Your task to perform on an android device: uninstall "Google Play Games" Image 0: 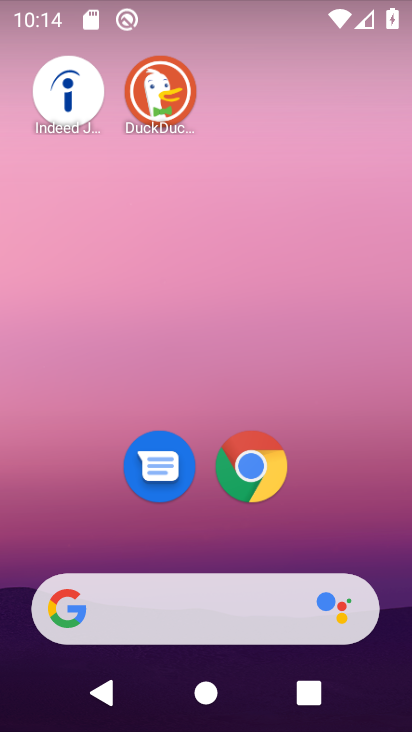
Step 0: drag from (239, 710) to (239, 58)
Your task to perform on an android device: uninstall "Google Play Games" Image 1: 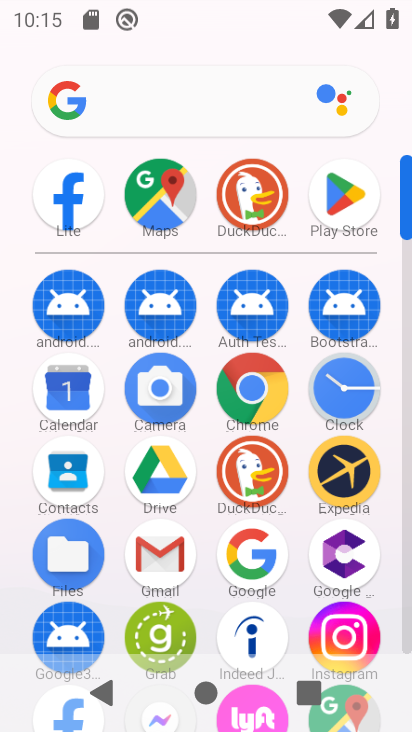
Step 1: click (355, 203)
Your task to perform on an android device: uninstall "Google Play Games" Image 2: 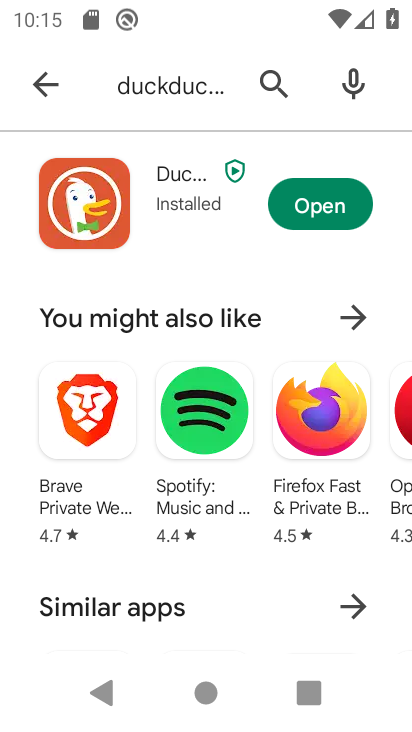
Step 2: click (275, 78)
Your task to perform on an android device: uninstall "Google Play Games" Image 3: 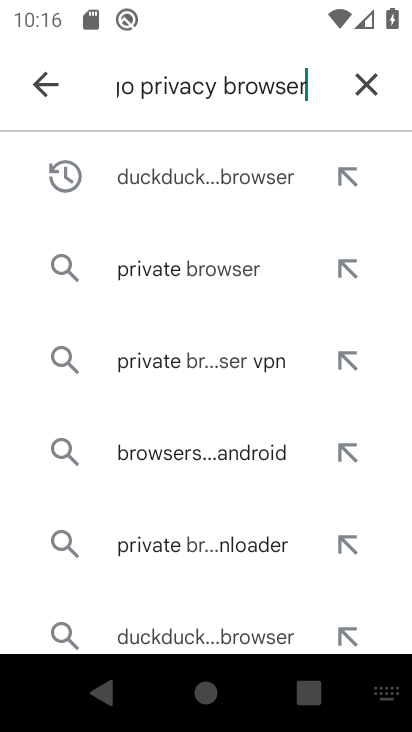
Step 3: click (369, 80)
Your task to perform on an android device: uninstall "Google Play Games" Image 4: 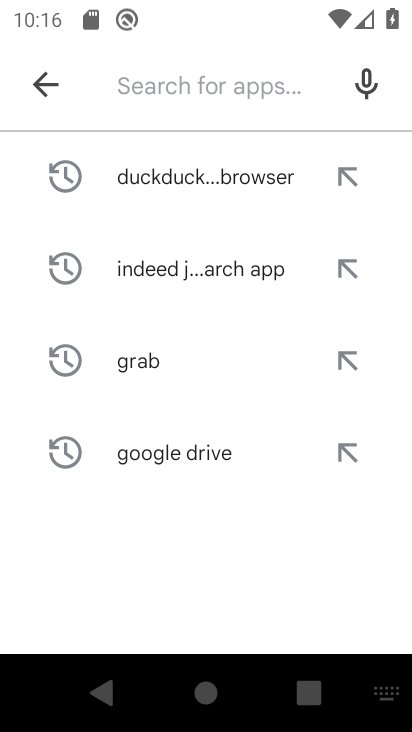
Step 4: type "Google Play Games"
Your task to perform on an android device: uninstall "Google Play Games" Image 5: 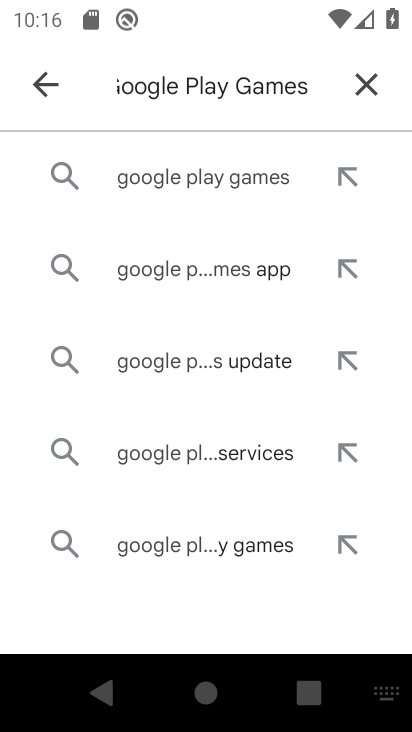
Step 5: click (209, 180)
Your task to perform on an android device: uninstall "Google Play Games" Image 6: 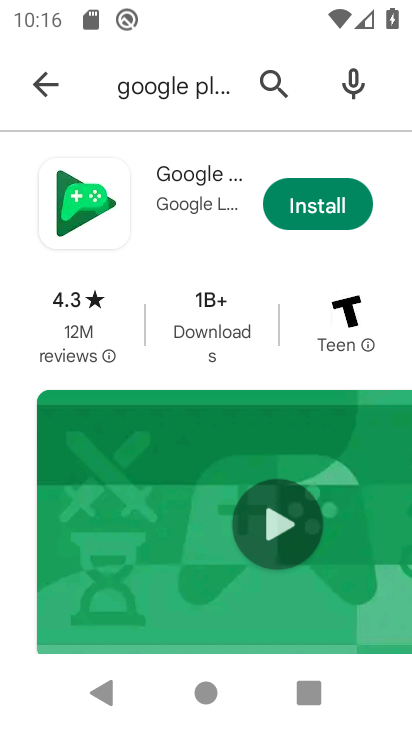
Step 6: click (192, 181)
Your task to perform on an android device: uninstall "Google Play Games" Image 7: 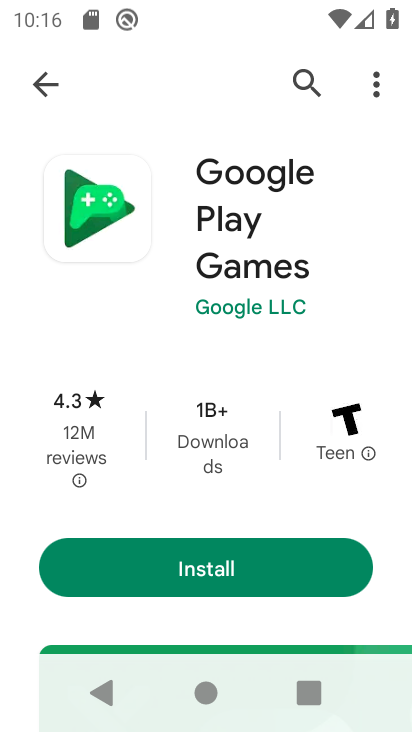
Step 7: task complete